Your task to perform on an android device: Toggle the flashlight Image 0: 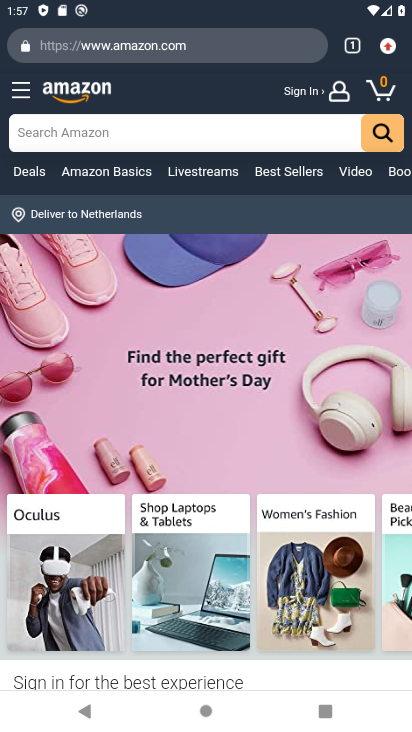
Step 0: drag from (179, 13) to (198, 540)
Your task to perform on an android device: Toggle the flashlight Image 1: 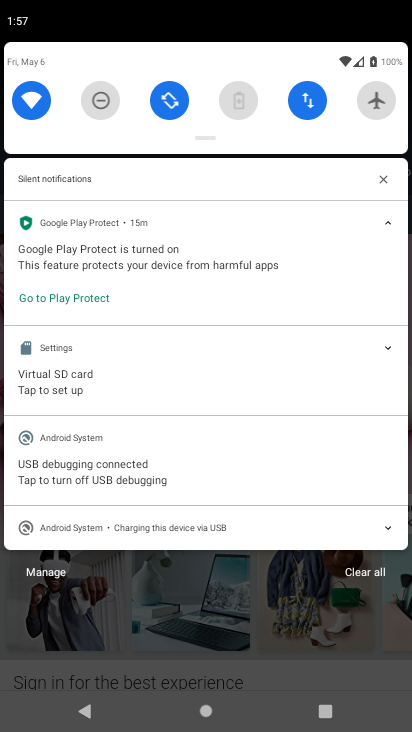
Step 1: drag from (215, 56) to (226, 624)
Your task to perform on an android device: Toggle the flashlight Image 2: 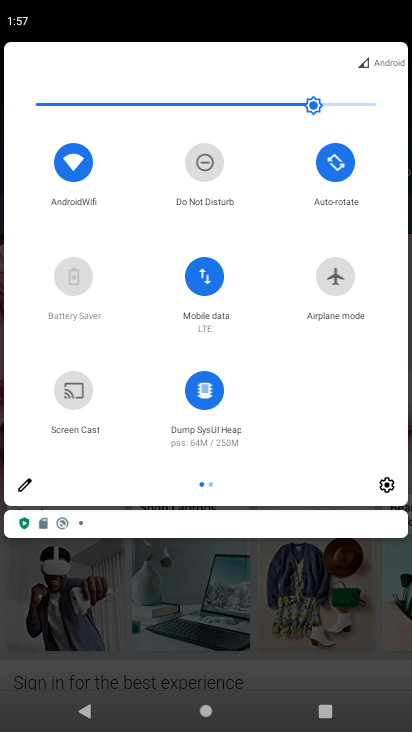
Step 2: click (372, 476)
Your task to perform on an android device: Toggle the flashlight Image 3: 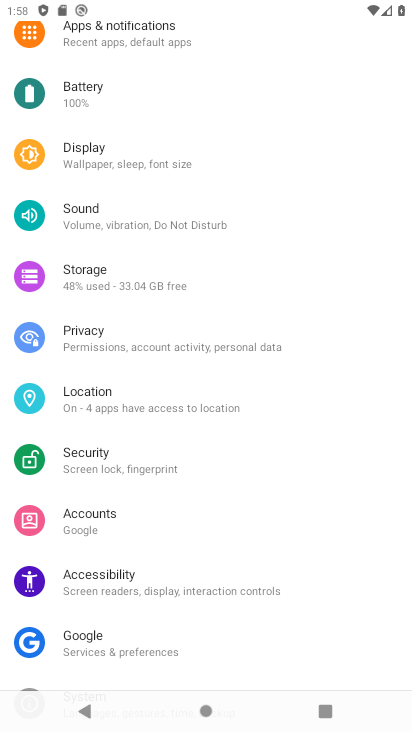
Step 3: task complete